Your task to perform on an android device: search for starred emails in the gmail app Image 0: 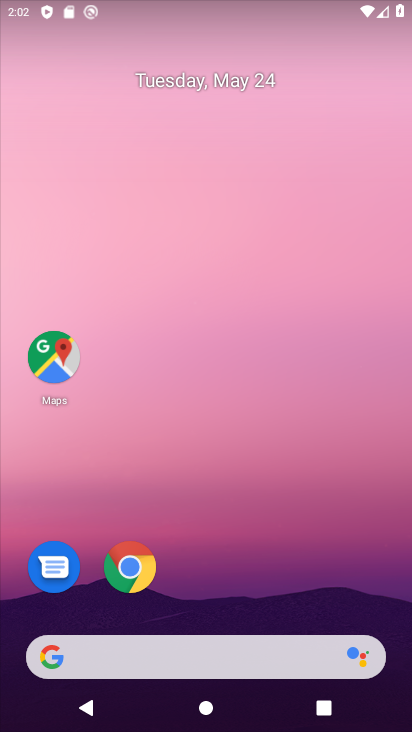
Step 0: drag from (153, 604) to (287, 46)
Your task to perform on an android device: search for starred emails in the gmail app Image 1: 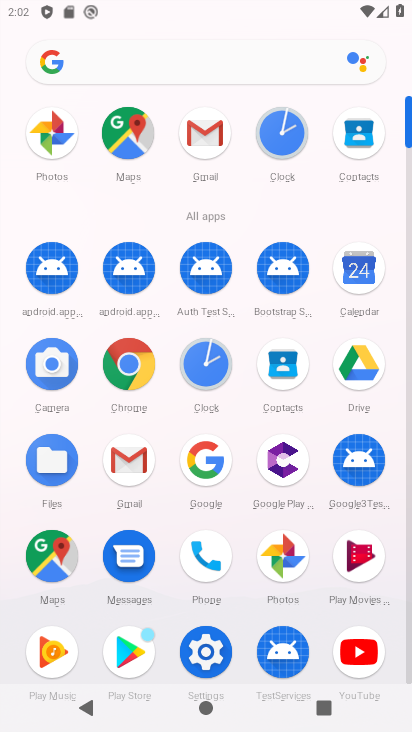
Step 1: click (203, 129)
Your task to perform on an android device: search for starred emails in the gmail app Image 2: 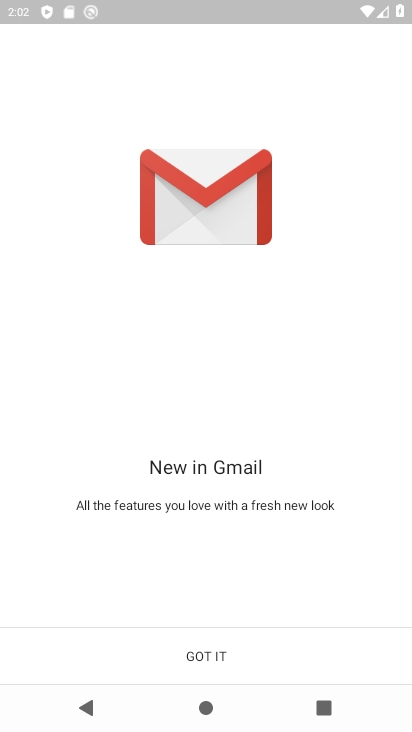
Step 2: click (187, 651)
Your task to perform on an android device: search for starred emails in the gmail app Image 3: 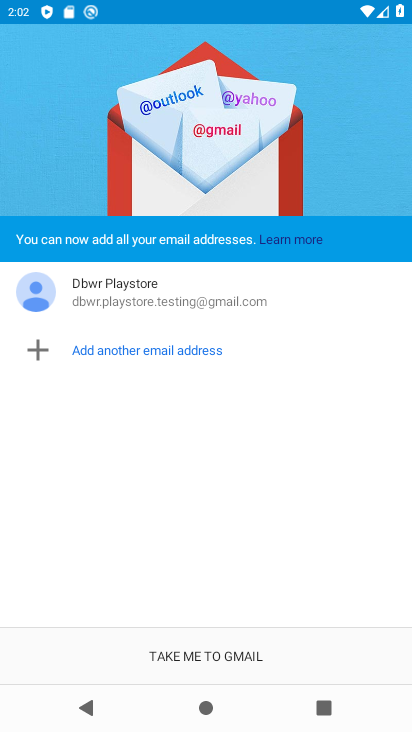
Step 3: click (200, 647)
Your task to perform on an android device: search for starred emails in the gmail app Image 4: 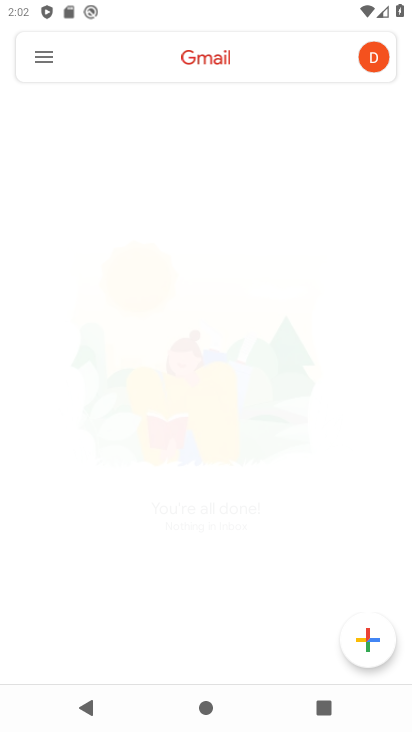
Step 4: click (47, 55)
Your task to perform on an android device: search for starred emails in the gmail app Image 5: 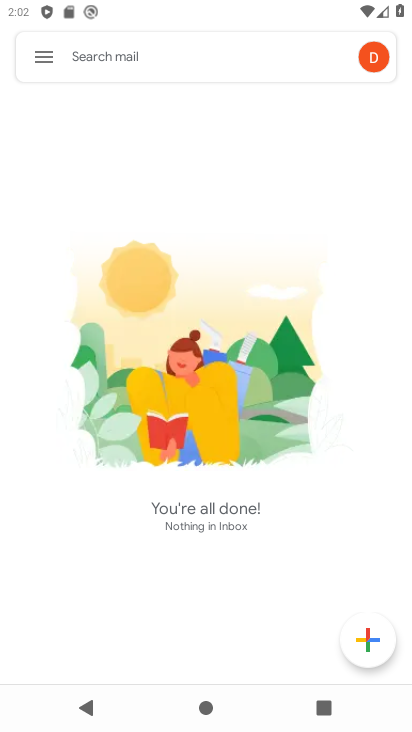
Step 5: click (40, 64)
Your task to perform on an android device: search for starred emails in the gmail app Image 6: 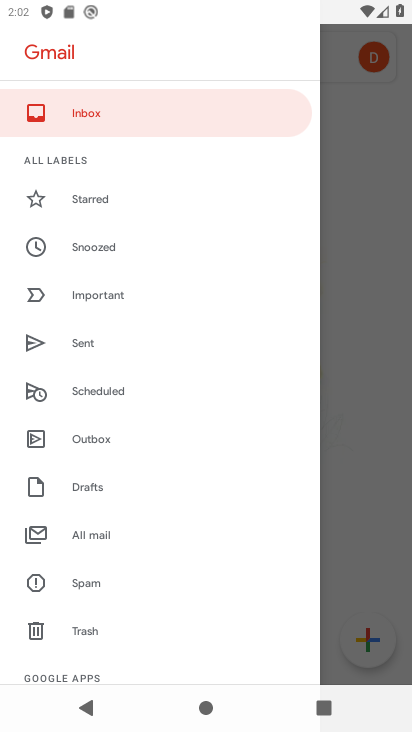
Step 6: click (113, 202)
Your task to perform on an android device: search for starred emails in the gmail app Image 7: 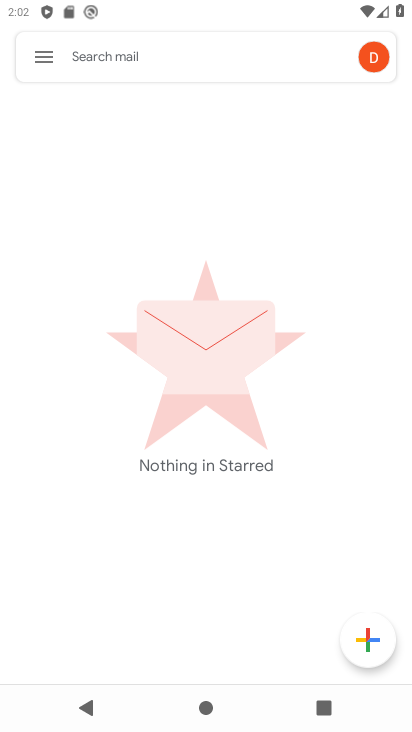
Step 7: task complete